Your task to perform on an android device: Go to privacy settings Image 0: 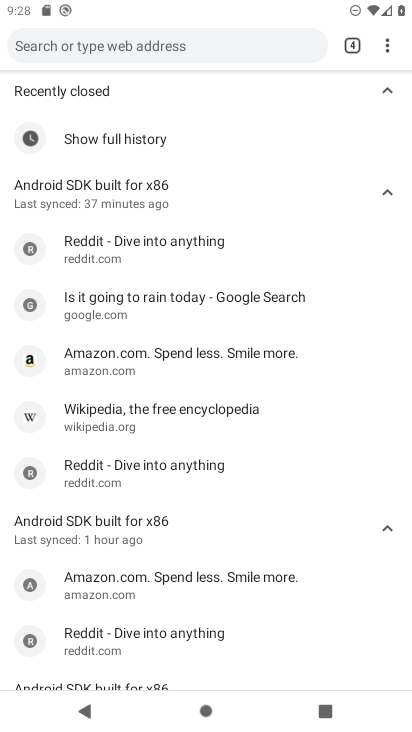
Step 0: press home button
Your task to perform on an android device: Go to privacy settings Image 1: 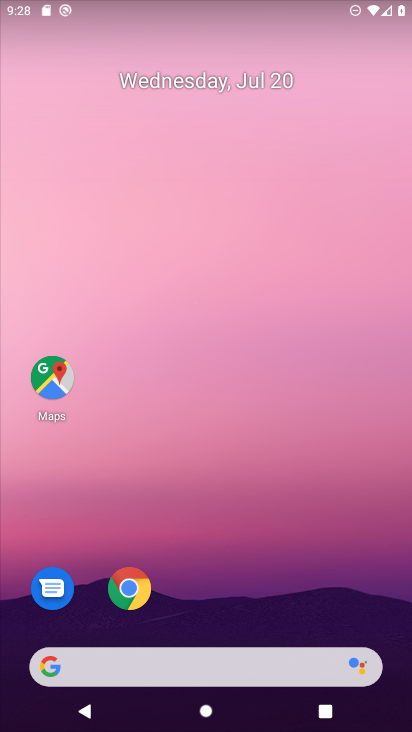
Step 1: drag from (186, 621) to (196, 242)
Your task to perform on an android device: Go to privacy settings Image 2: 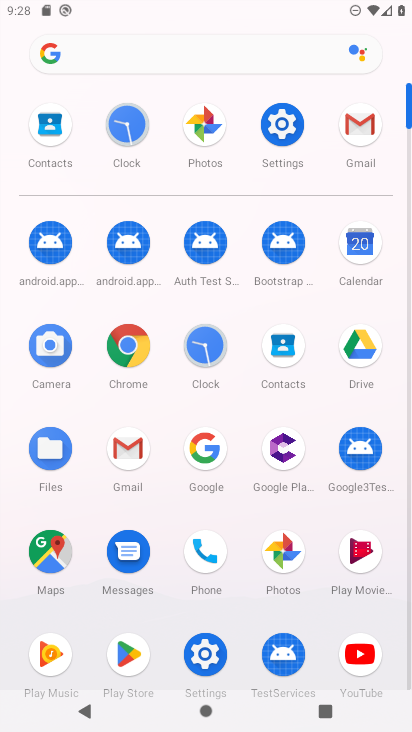
Step 2: click (290, 133)
Your task to perform on an android device: Go to privacy settings Image 3: 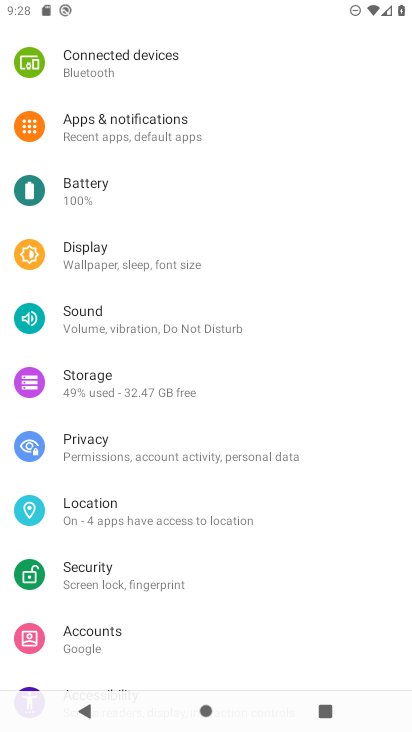
Step 3: click (97, 440)
Your task to perform on an android device: Go to privacy settings Image 4: 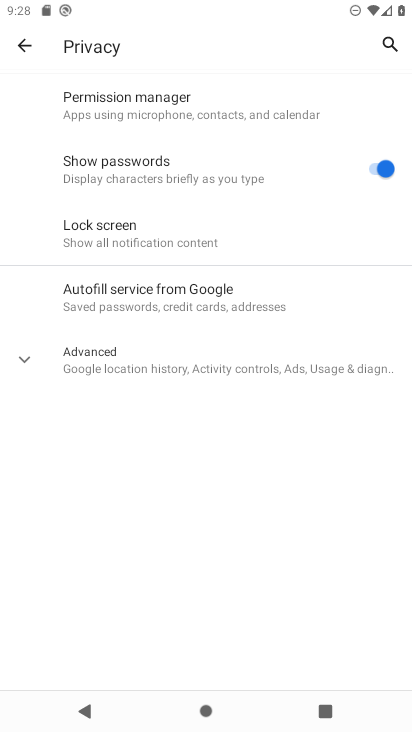
Step 4: task complete